Your task to perform on an android device: add a contact Image 0: 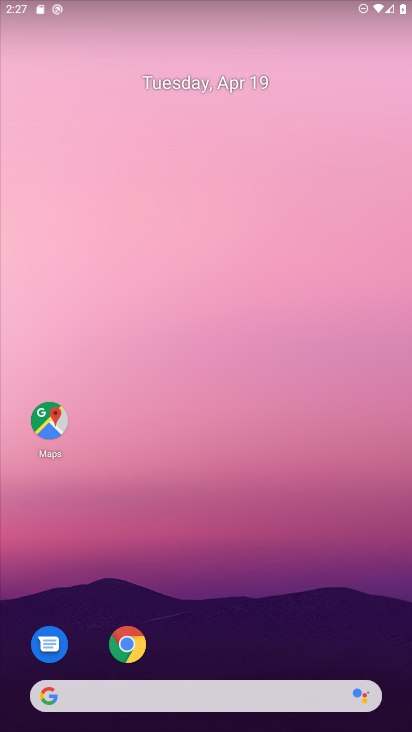
Step 0: drag from (208, 526) to (159, 128)
Your task to perform on an android device: add a contact Image 1: 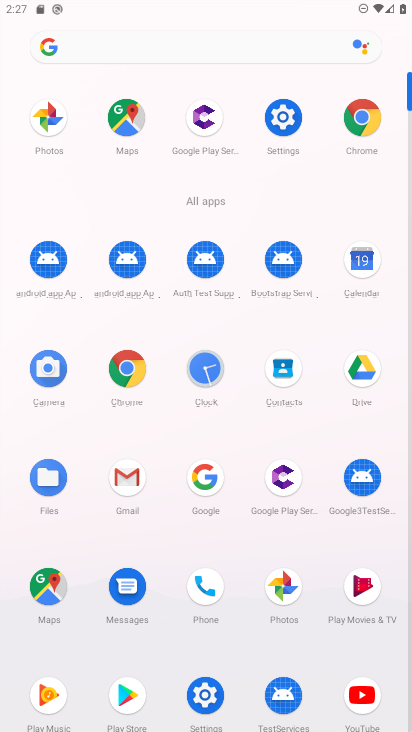
Step 1: click (283, 366)
Your task to perform on an android device: add a contact Image 2: 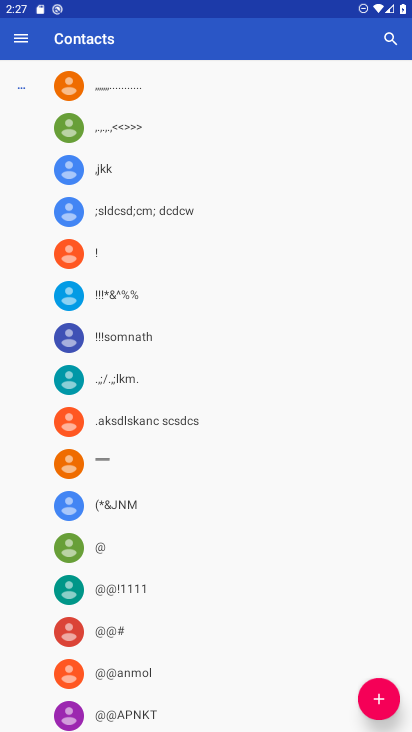
Step 2: click (384, 707)
Your task to perform on an android device: add a contact Image 3: 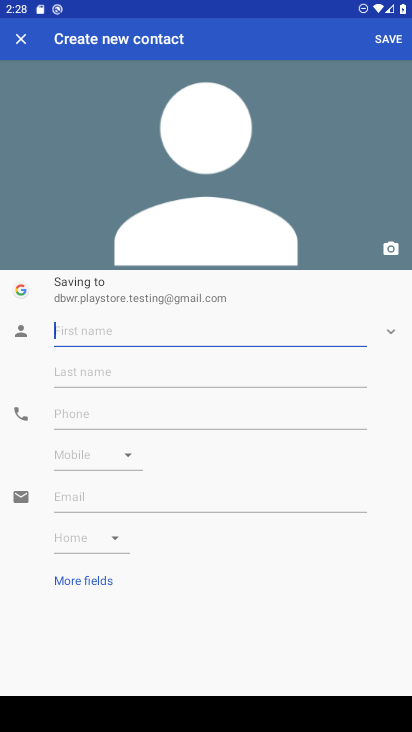
Step 3: click (107, 328)
Your task to perform on an android device: add a contact Image 4: 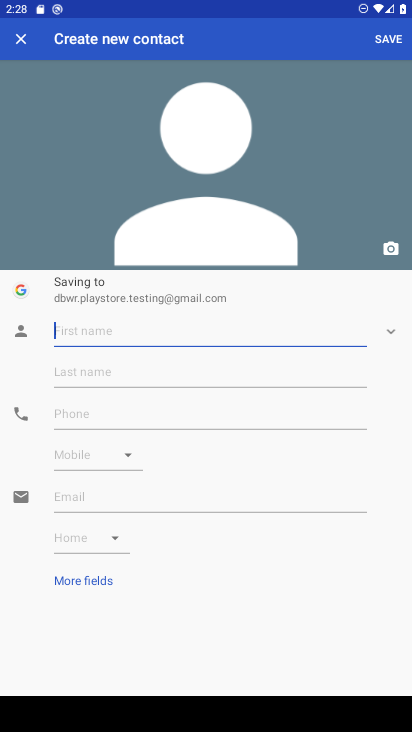
Step 4: type "hello world hell world"
Your task to perform on an android device: add a contact Image 5: 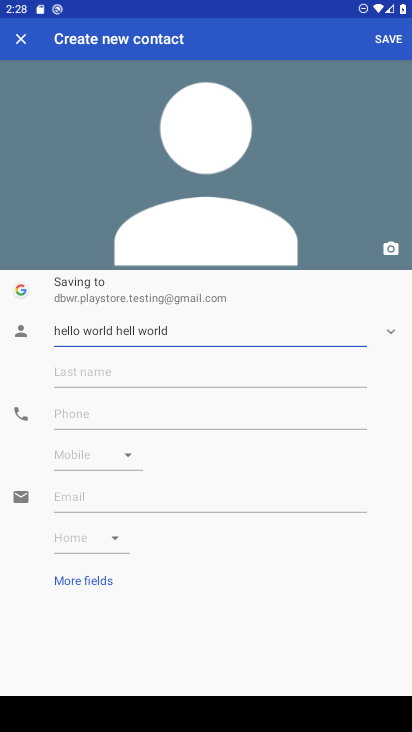
Step 5: click (101, 423)
Your task to perform on an android device: add a contact Image 6: 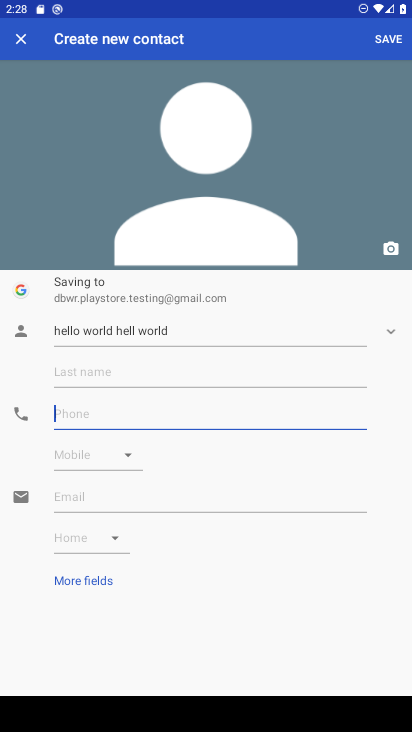
Step 6: click (381, 42)
Your task to perform on an android device: add a contact Image 7: 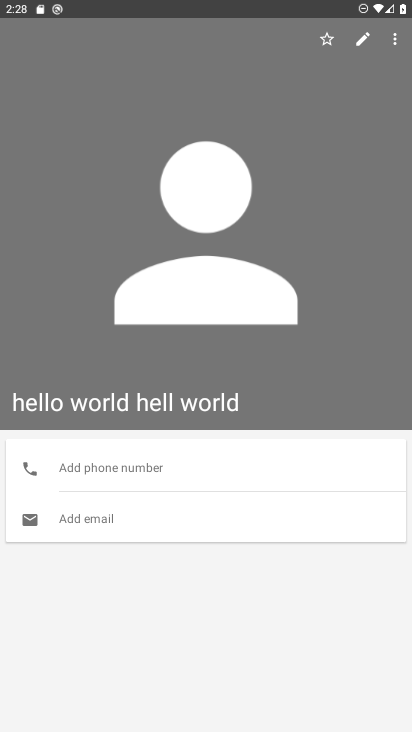
Step 7: task complete